Your task to perform on an android device: Go to internet settings Image 0: 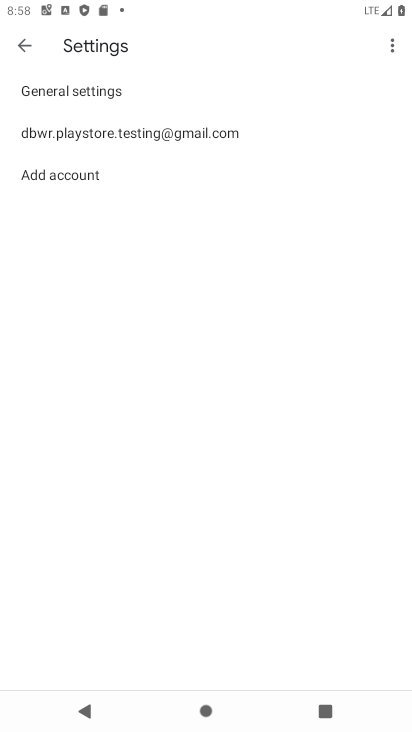
Step 0: press home button
Your task to perform on an android device: Go to internet settings Image 1: 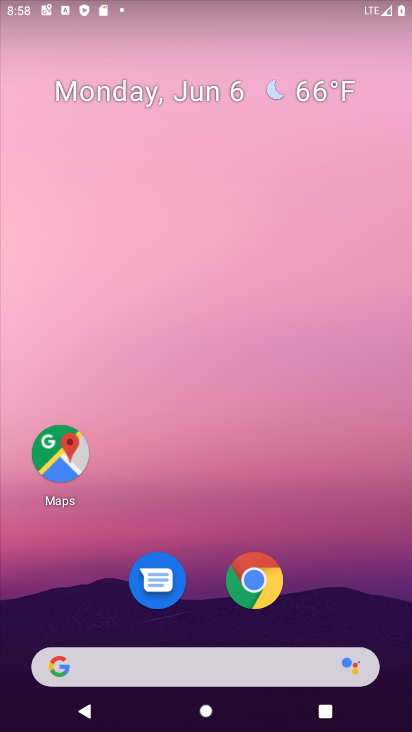
Step 1: drag from (299, 463) to (293, 0)
Your task to perform on an android device: Go to internet settings Image 2: 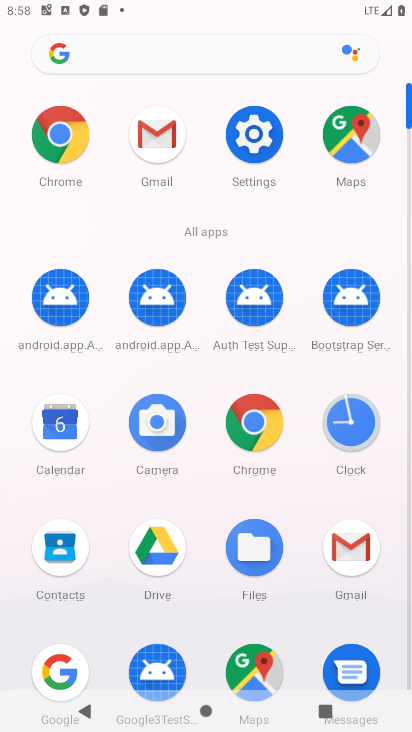
Step 2: click (279, 130)
Your task to perform on an android device: Go to internet settings Image 3: 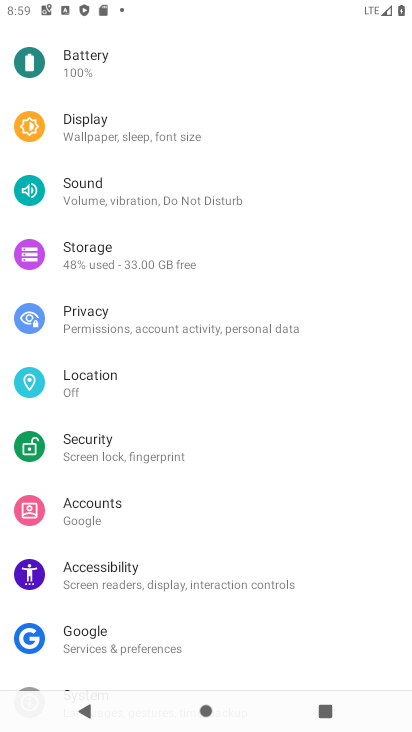
Step 3: drag from (106, 179) to (85, 557)
Your task to perform on an android device: Go to internet settings Image 4: 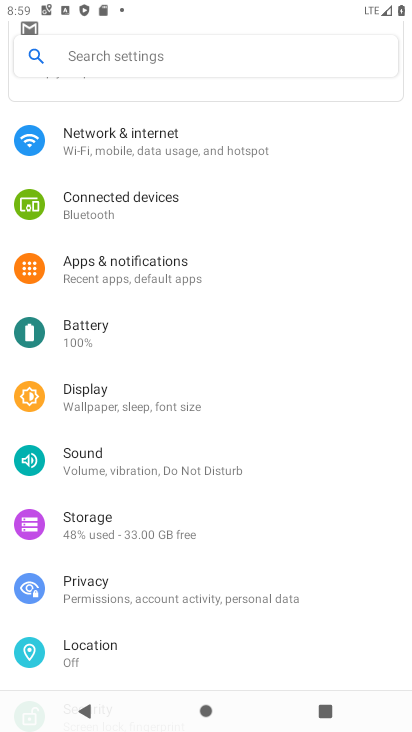
Step 4: click (114, 143)
Your task to perform on an android device: Go to internet settings Image 5: 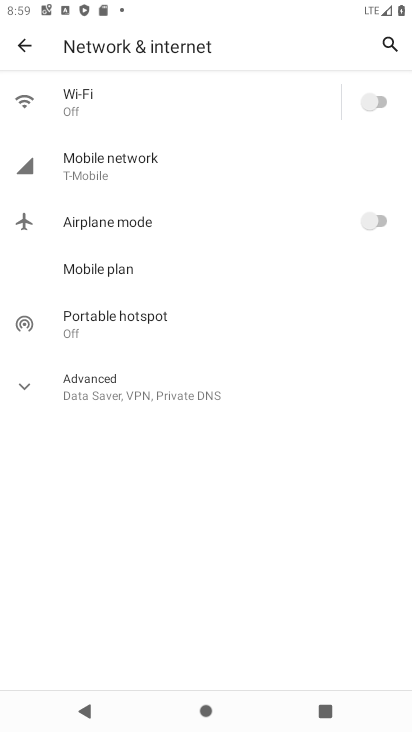
Step 5: task complete